Your task to perform on an android device: Search for "alienware area 51" on target.com, select the first entry, add it to the cart, then select checkout. Image 0: 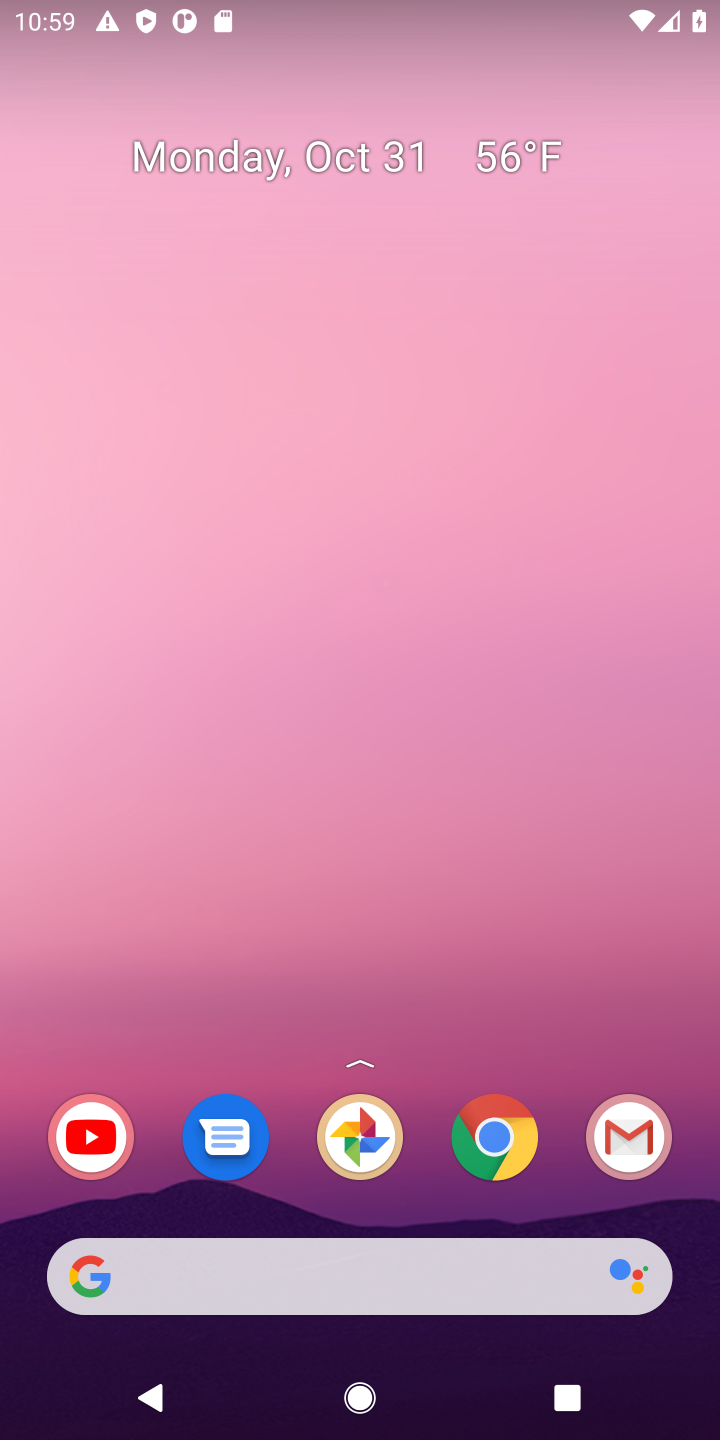
Step 0: click (494, 1143)
Your task to perform on an android device: Search for "alienware area 51" on target.com, select the first entry, add it to the cart, then select checkout. Image 1: 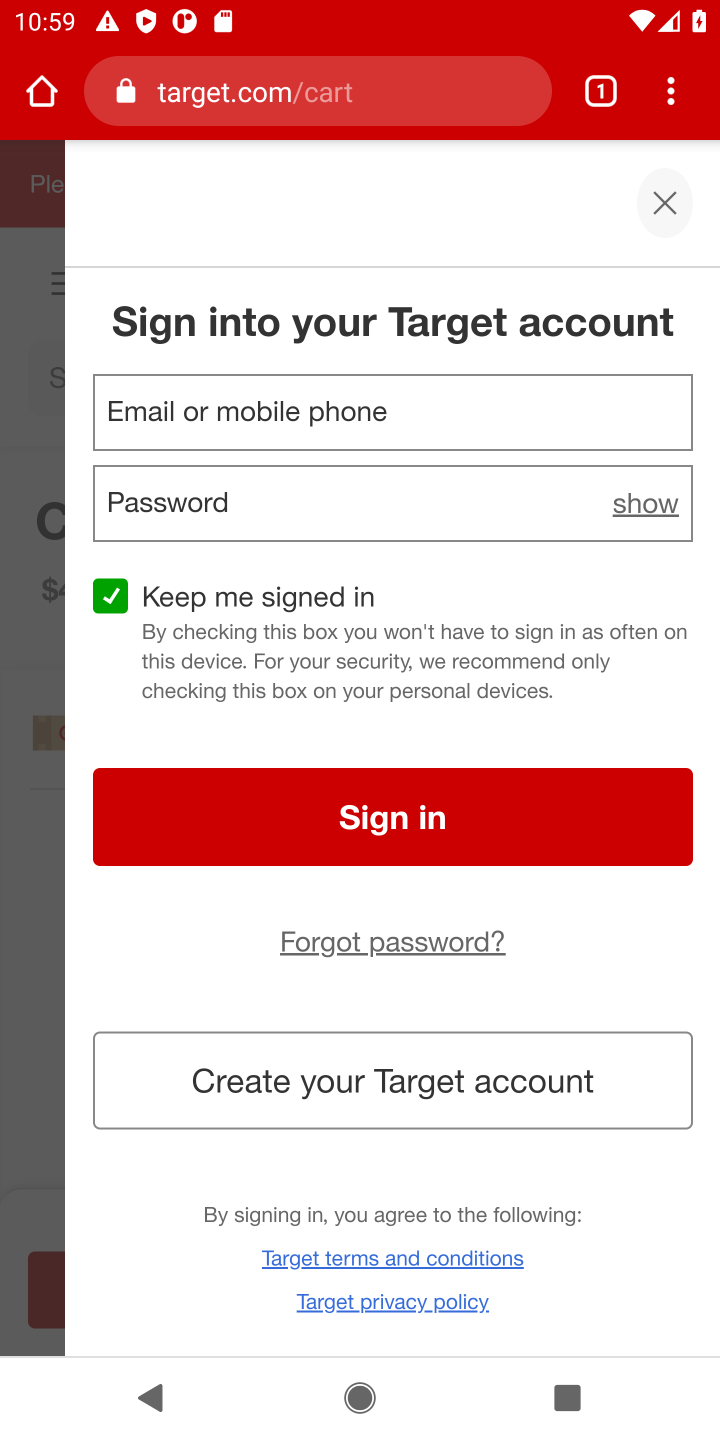
Step 1: click (466, 93)
Your task to perform on an android device: Search for "alienware area 51" on target.com, select the first entry, add it to the cart, then select checkout. Image 2: 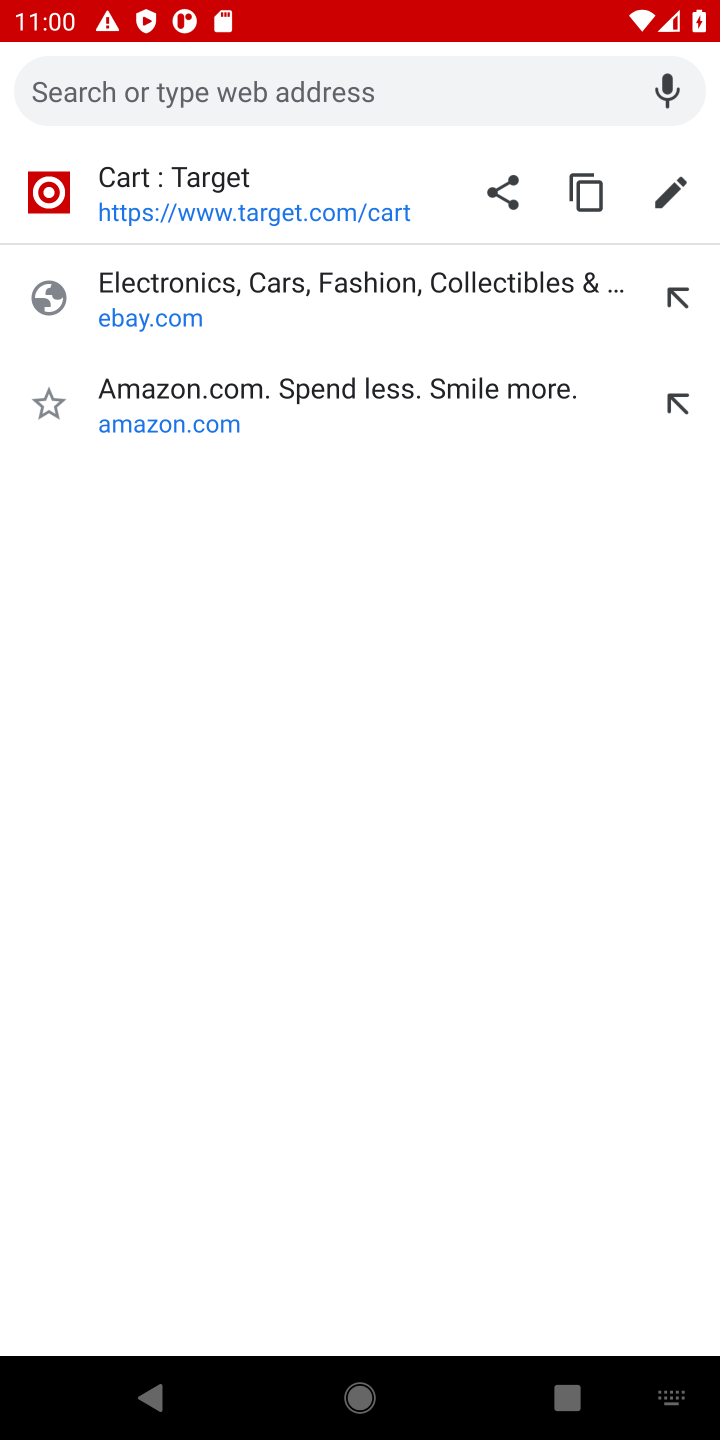
Step 2: type "target.com"
Your task to perform on an android device: Search for "alienware area 51" on target.com, select the first entry, add it to the cart, then select checkout. Image 3: 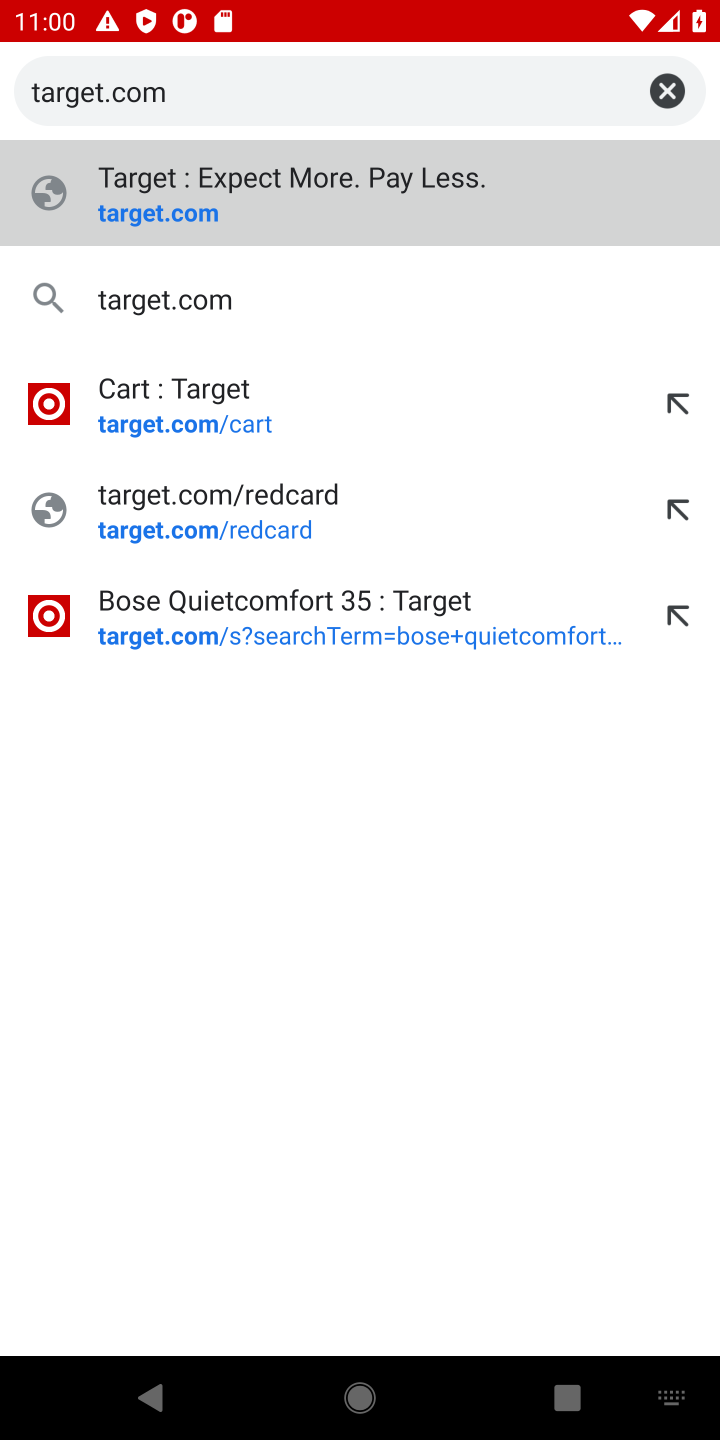
Step 3: click (163, 300)
Your task to perform on an android device: Search for "alienware area 51" on target.com, select the first entry, add it to the cart, then select checkout. Image 4: 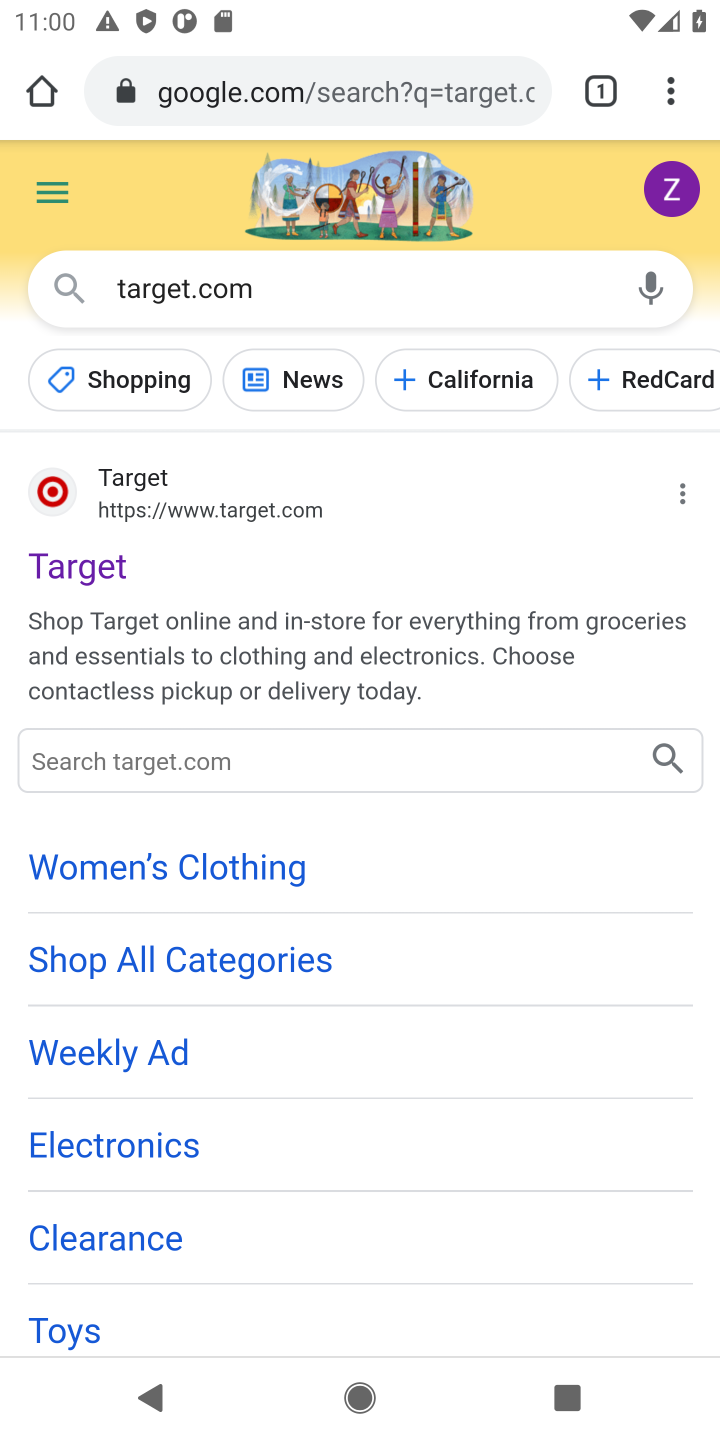
Step 4: click (92, 574)
Your task to perform on an android device: Search for "alienware area 51" on target.com, select the first entry, add it to the cart, then select checkout. Image 5: 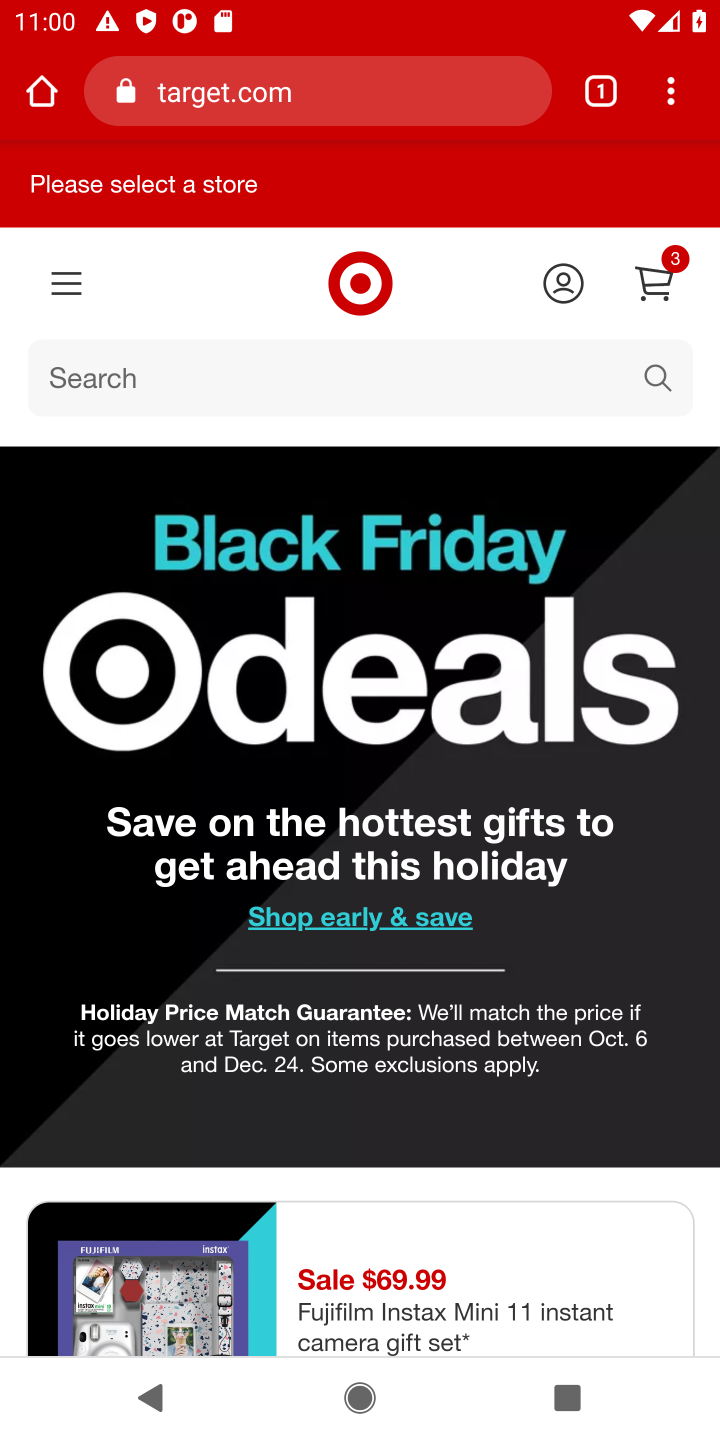
Step 5: click (333, 375)
Your task to perform on an android device: Search for "alienware area 51" on target.com, select the first entry, add it to the cart, then select checkout. Image 6: 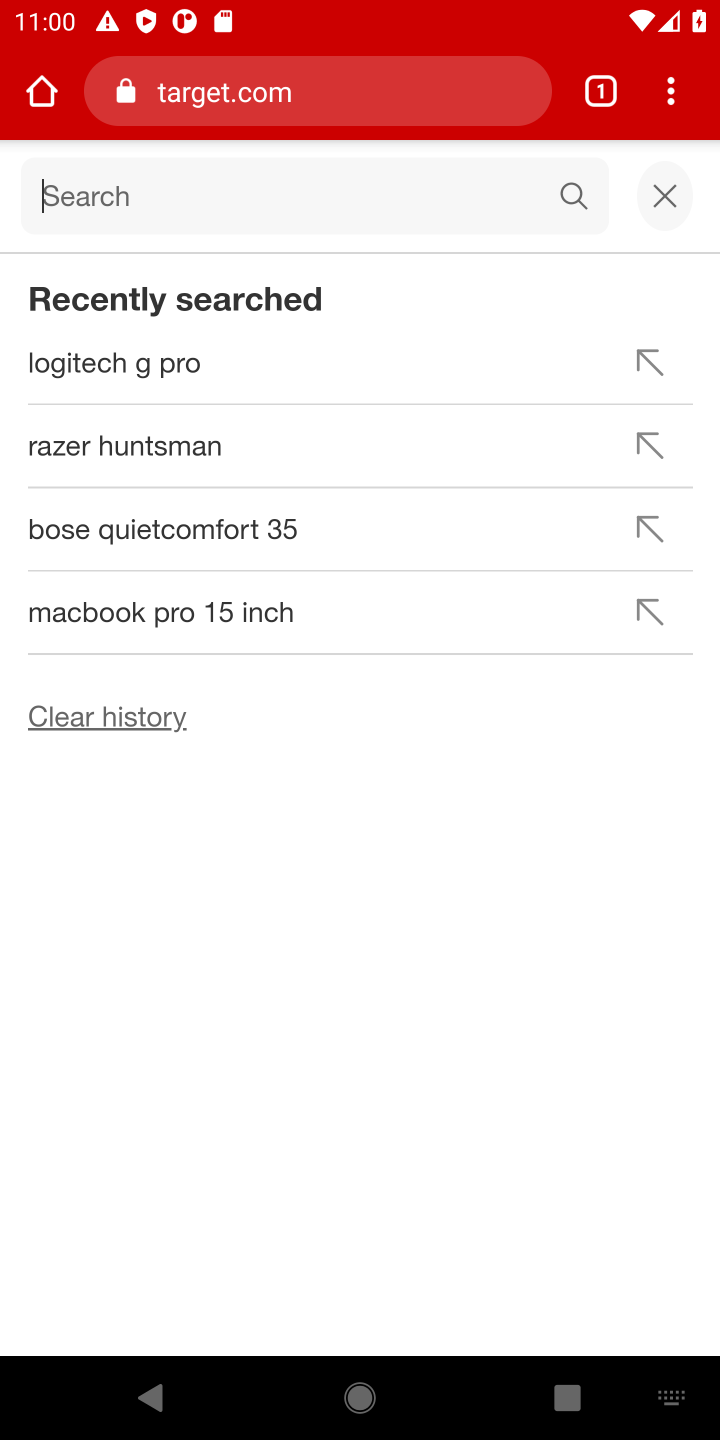
Step 6: type "alienware area 51"
Your task to perform on an android device: Search for "alienware area 51" on target.com, select the first entry, add it to the cart, then select checkout. Image 7: 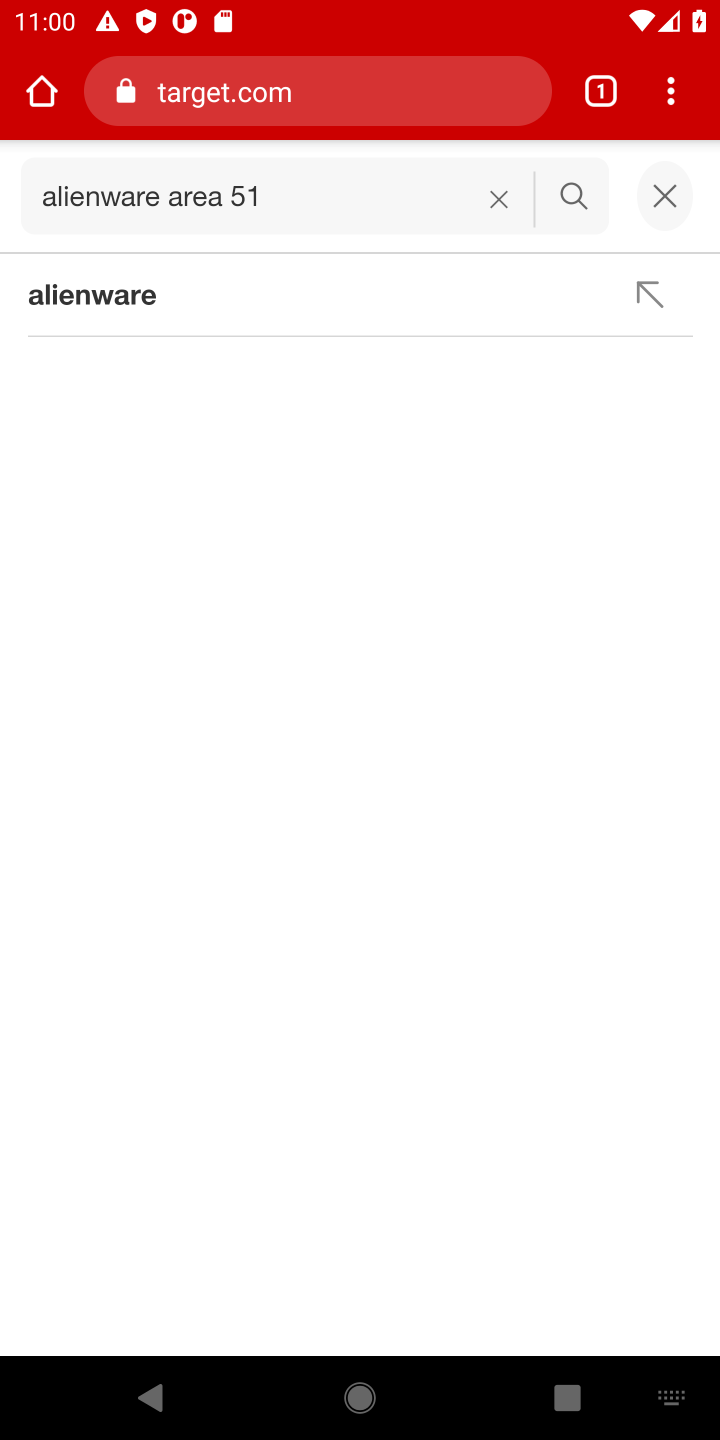
Step 7: click (573, 196)
Your task to perform on an android device: Search for "alienware area 51" on target.com, select the first entry, add it to the cart, then select checkout. Image 8: 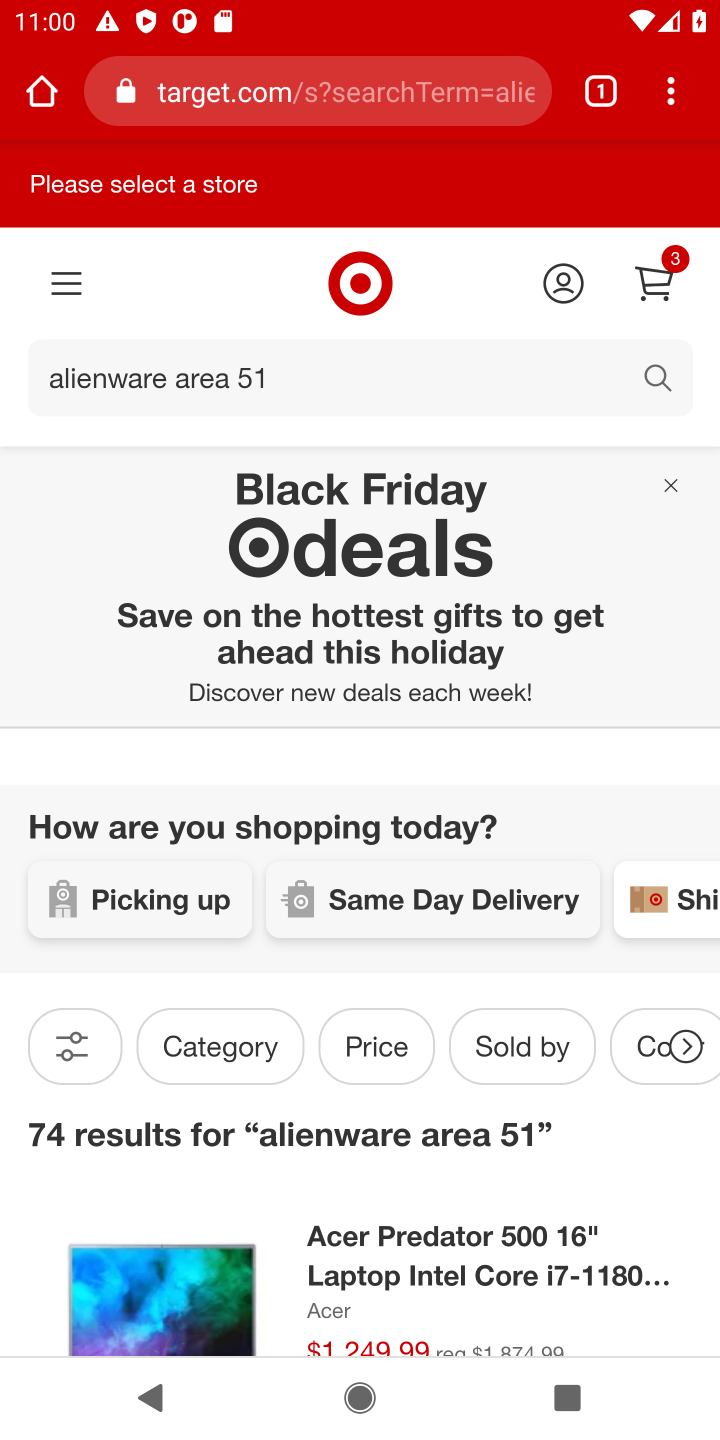
Step 8: drag from (367, 1187) to (372, 621)
Your task to perform on an android device: Search for "alienware area 51" on target.com, select the first entry, add it to the cart, then select checkout. Image 9: 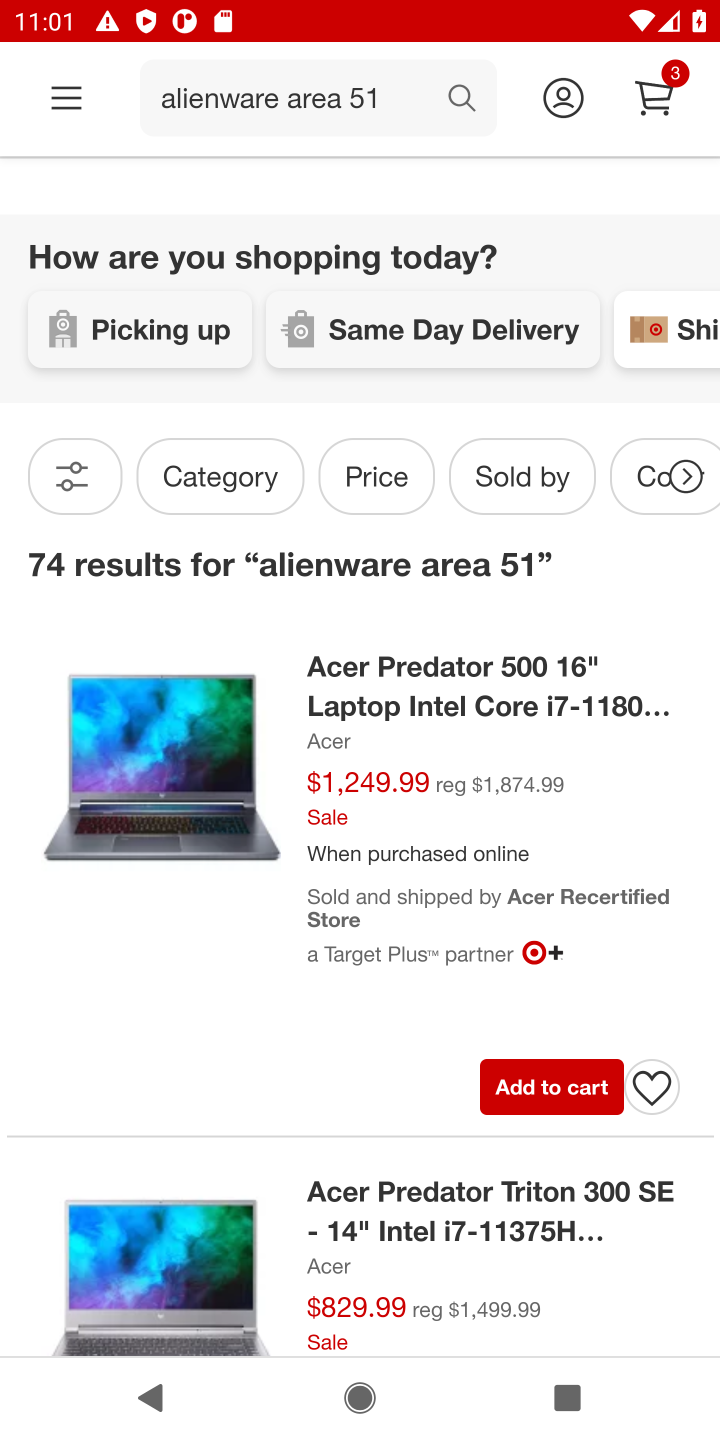
Step 9: click (469, 700)
Your task to perform on an android device: Search for "alienware area 51" on target.com, select the first entry, add it to the cart, then select checkout. Image 10: 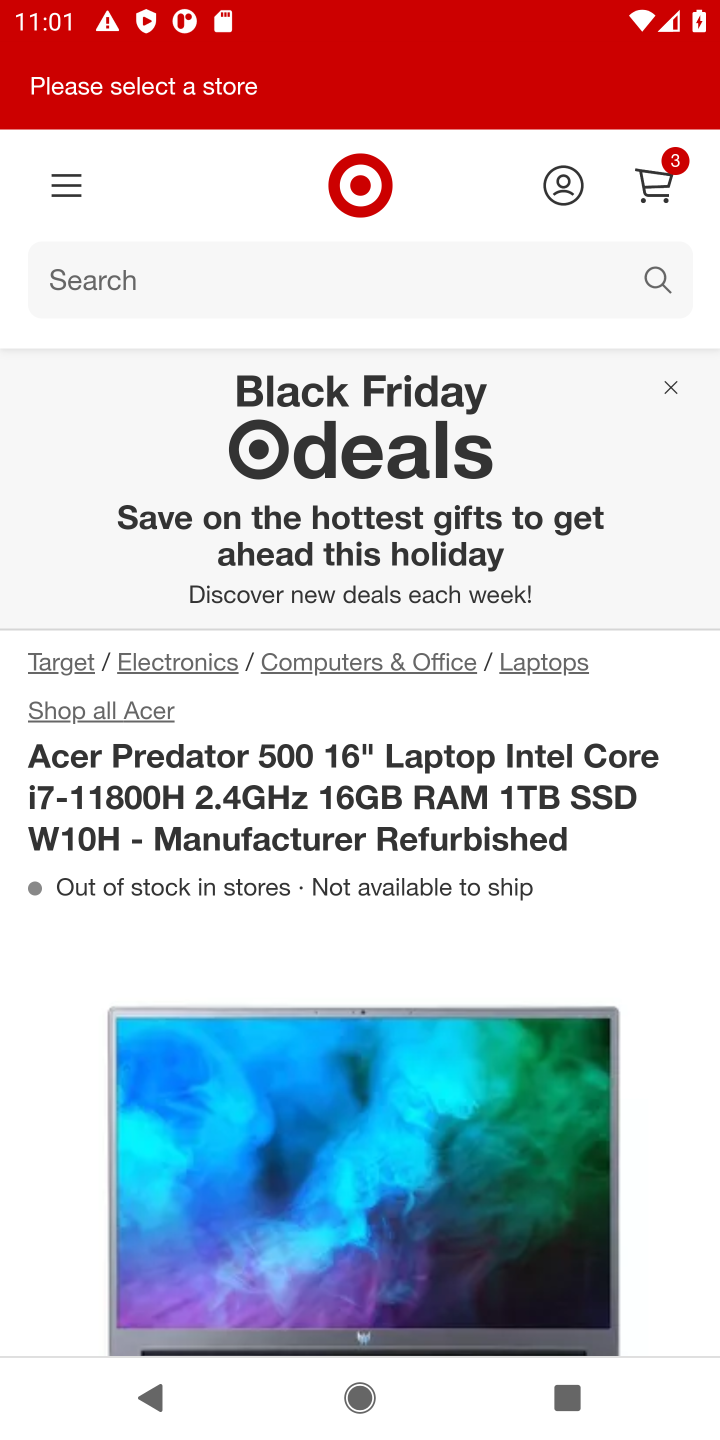
Step 10: drag from (374, 1170) to (475, 656)
Your task to perform on an android device: Search for "alienware area 51" on target.com, select the first entry, add it to the cart, then select checkout. Image 11: 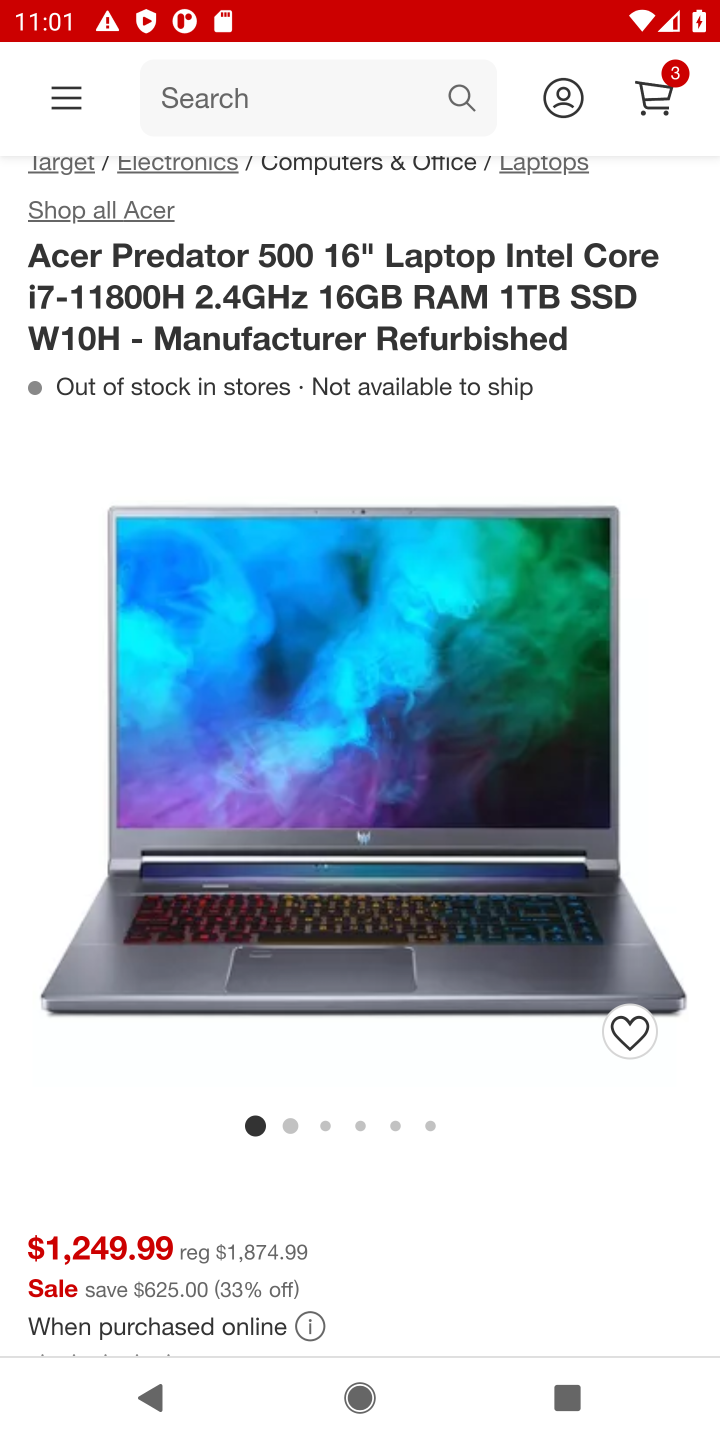
Step 11: drag from (358, 1135) to (433, 399)
Your task to perform on an android device: Search for "alienware area 51" on target.com, select the first entry, add it to the cart, then select checkout. Image 12: 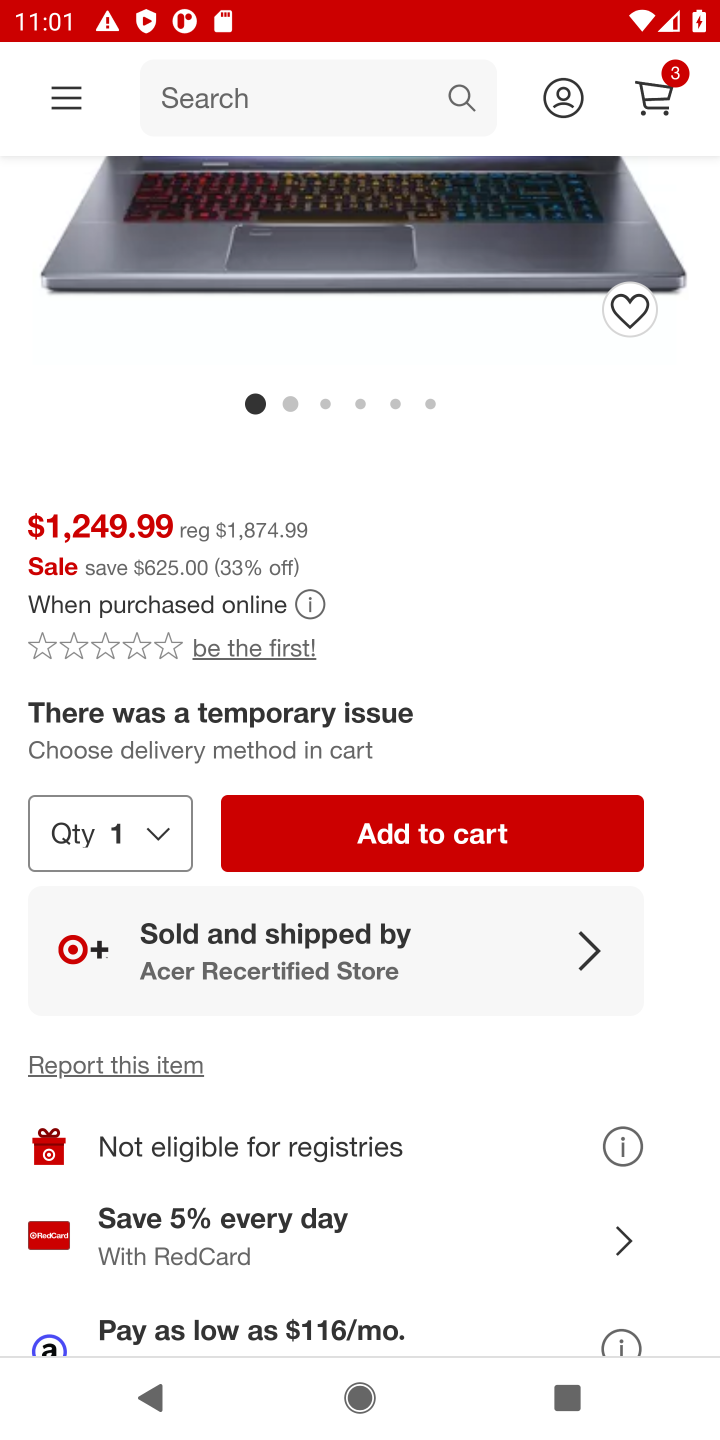
Step 12: click (433, 835)
Your task to perform on an android device: Search for "alienware area 51" on target.com, select the first entry, add it to the cart, then select checkout. Image 13: 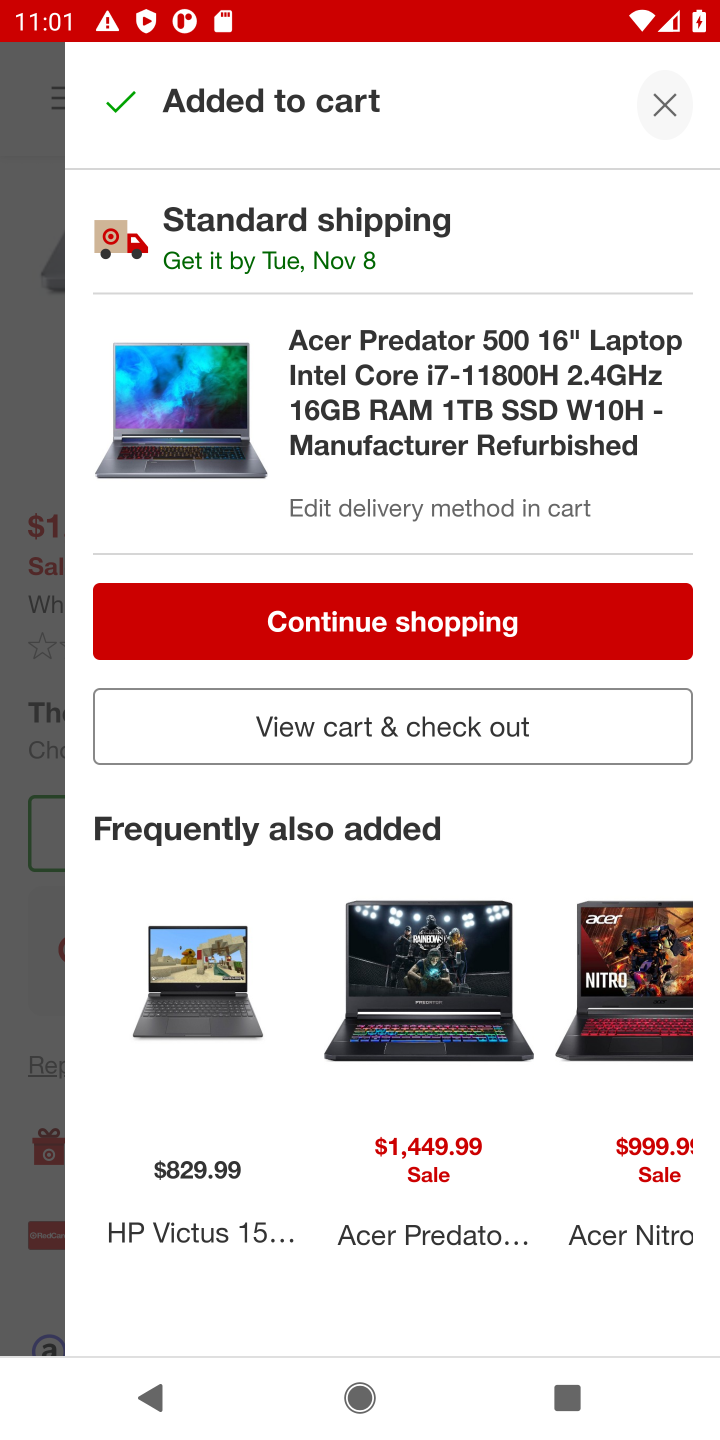
Step 13: click (379, 730)
Your task to perform on an android device: Search for "alienware area 51" on target.com, select the first entry, add it to the cart, then select checkout. Image 14: 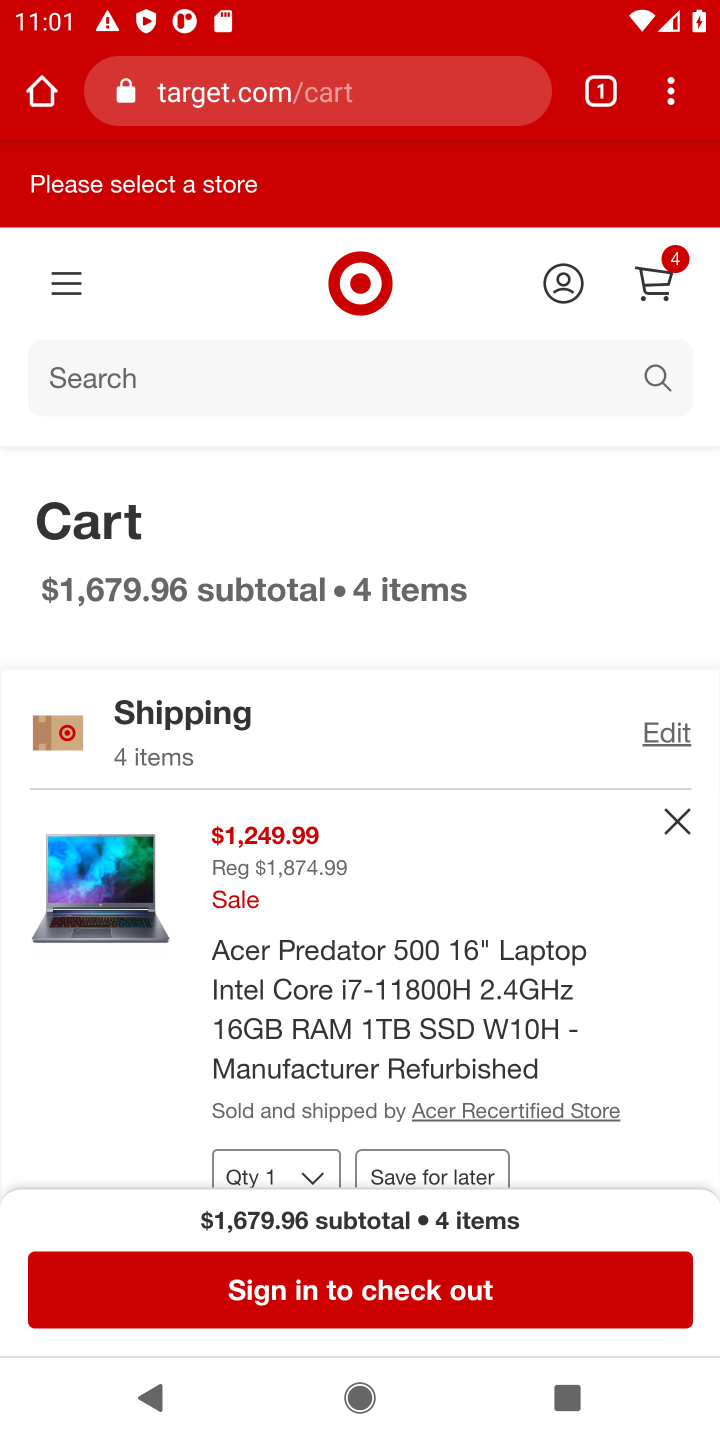
Step 14: click (438, 1307)
Your task to perform on an android device: Search for "alienware area 51" on target.com, select the first entry, add it to the cart, then select checkout. Image 15: 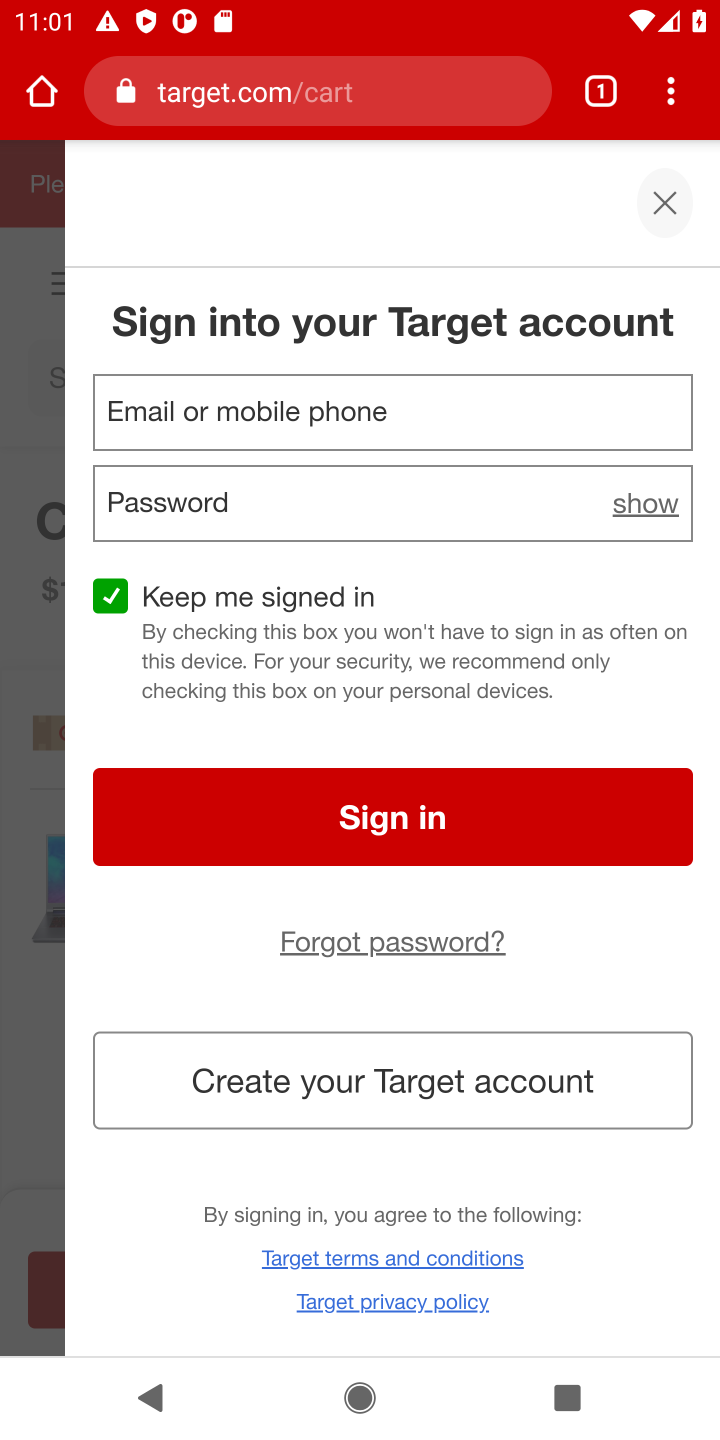
Step 15: task complete